Your task to perform on an android device: Open network settings Image 0: 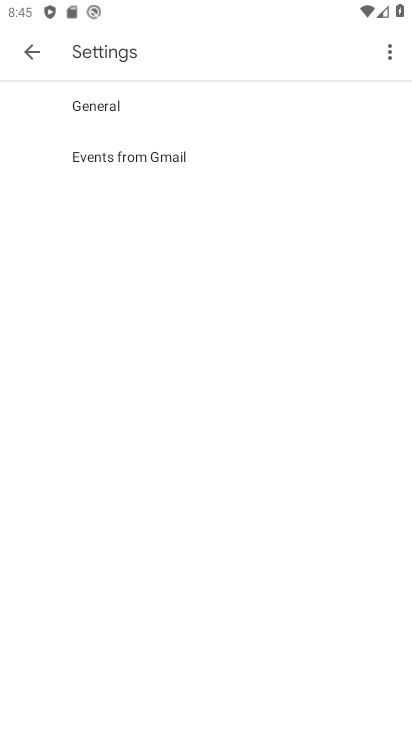
Step 0: click (26, 55)
Your task to perform on an android device: Open network settings Image 1: 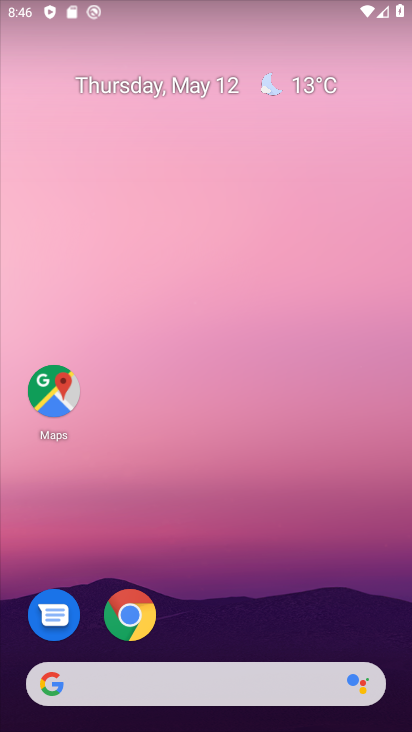
Step 1: drag from (202, 649) to (142, 102)
Your task to perform on an android device: Open network settings Image 2: 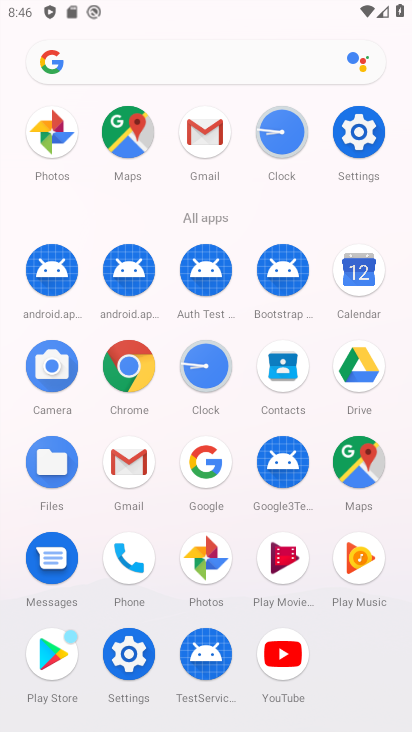
Step 2: click (131, 677)
Your task to perform on an android device: Open network settings Image 3: 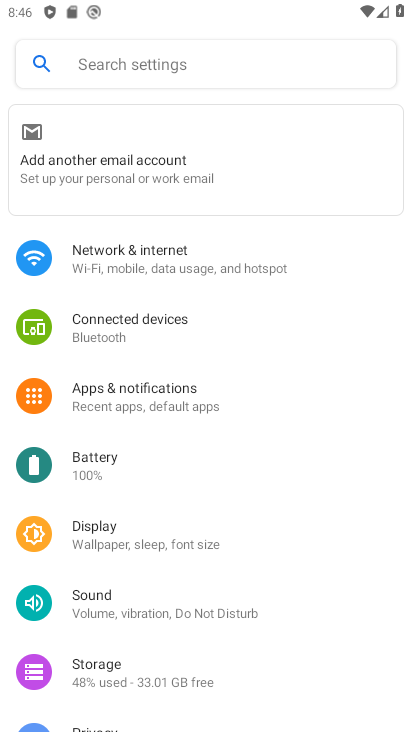
Step 3: click (300, 275)
Your task to perform on an android device: Open network settings Image 4: 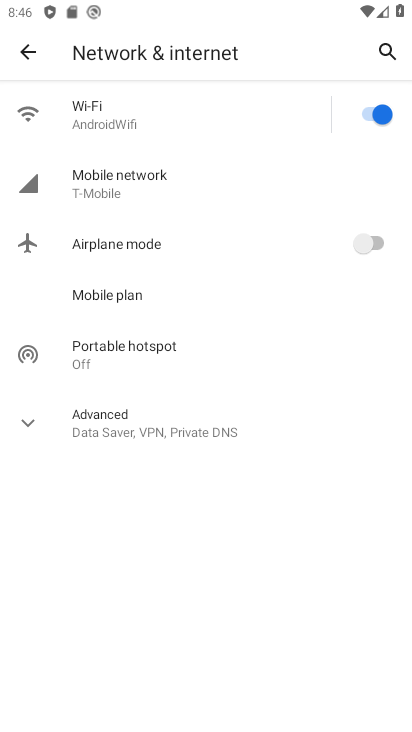
Step 4: click (161, 183)
Your task to perform on an android device: Open network settings Image 5: 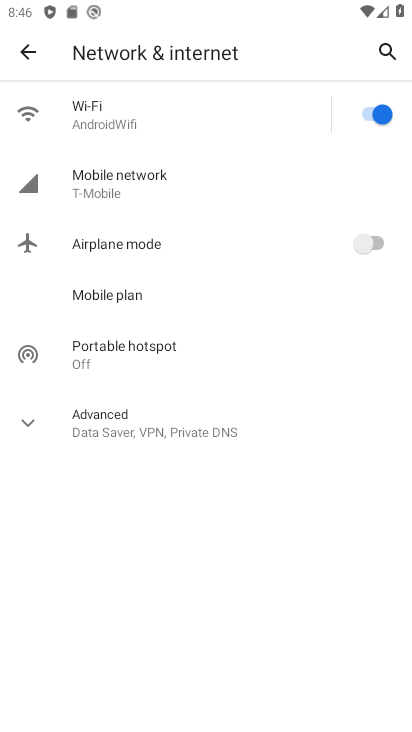
Step 5: task complete